Your task to perform on an android device: Go to Google maps Image 0: 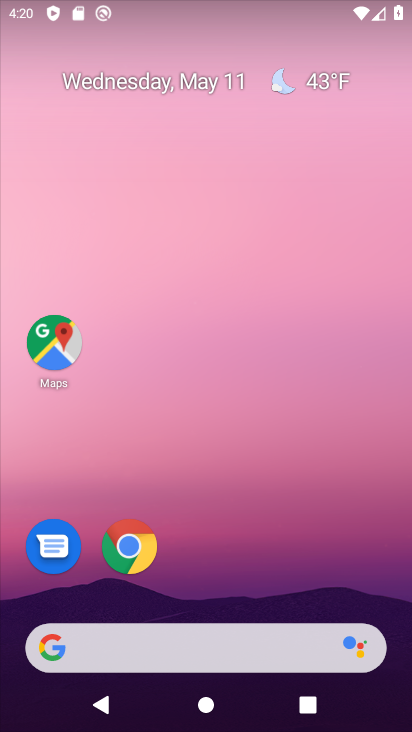
Step 0: click (67, 348)
Your task to perform on an android device: Go to Google maps Image 1: 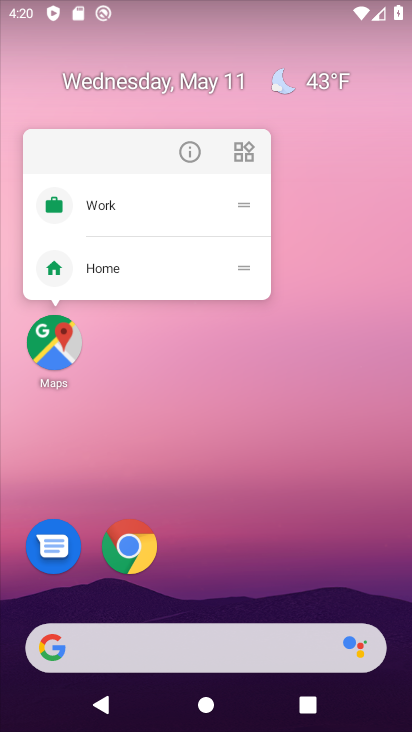
Step 1: click (75, 348)
Your task to perform on an android device: Go to Google maps Image 2: 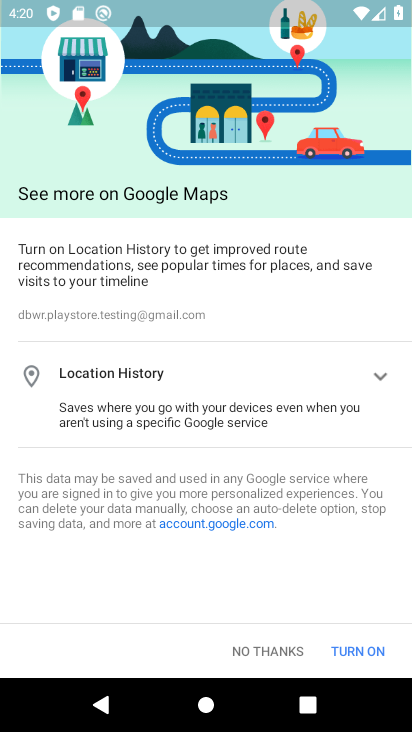
Step 2: click (333, 655)
Your task to perform on an android device: Go to Google maps Image 3: 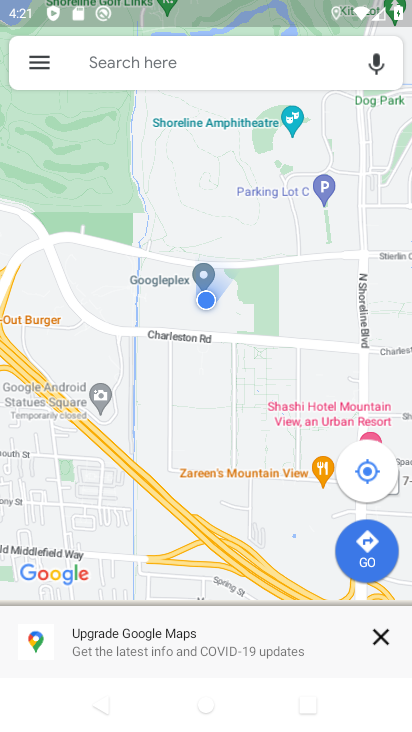
Step 3: task complete